Your task to perform on an android device: Search for flights from Sydney to Zurich Image 0: 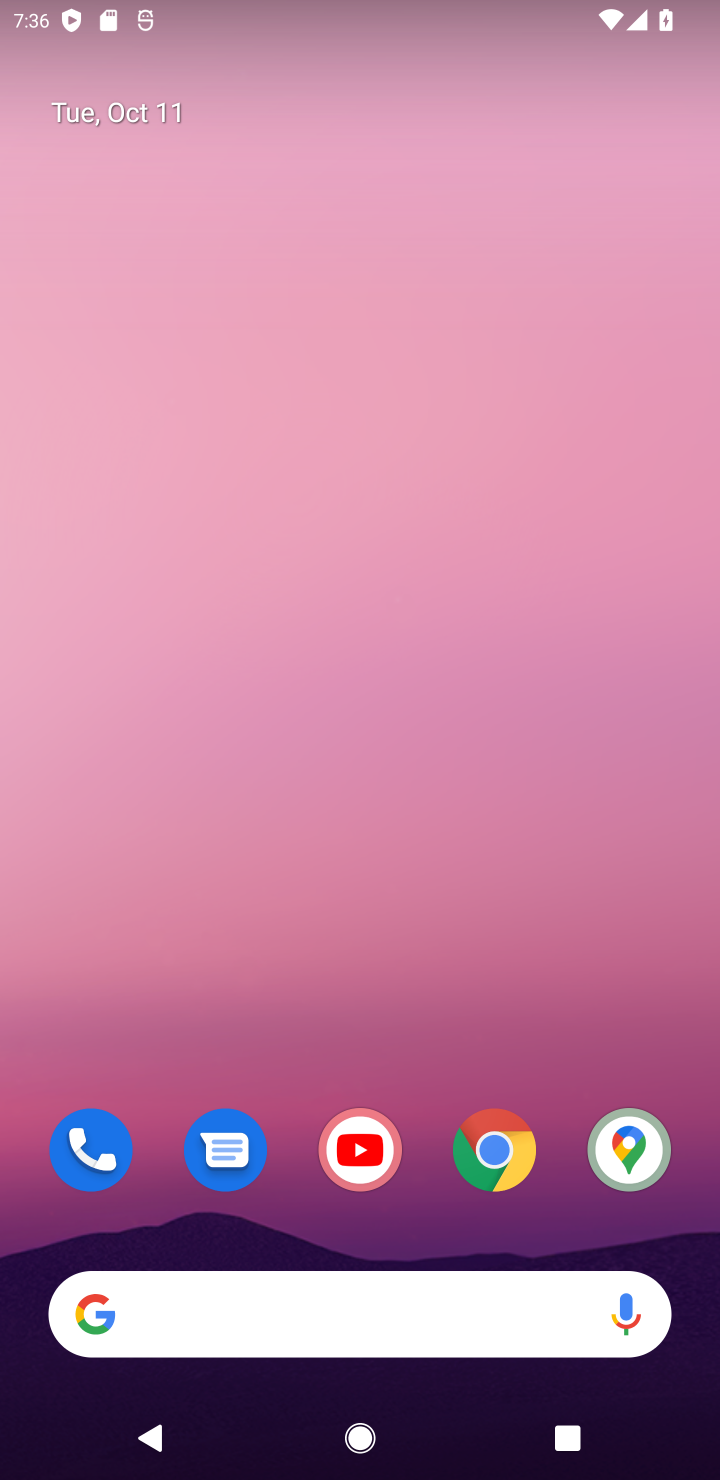
Step 0: click (481, 1145)
Your task to perform on an android device: Search for flights from Sydney to Zurich Image 1: 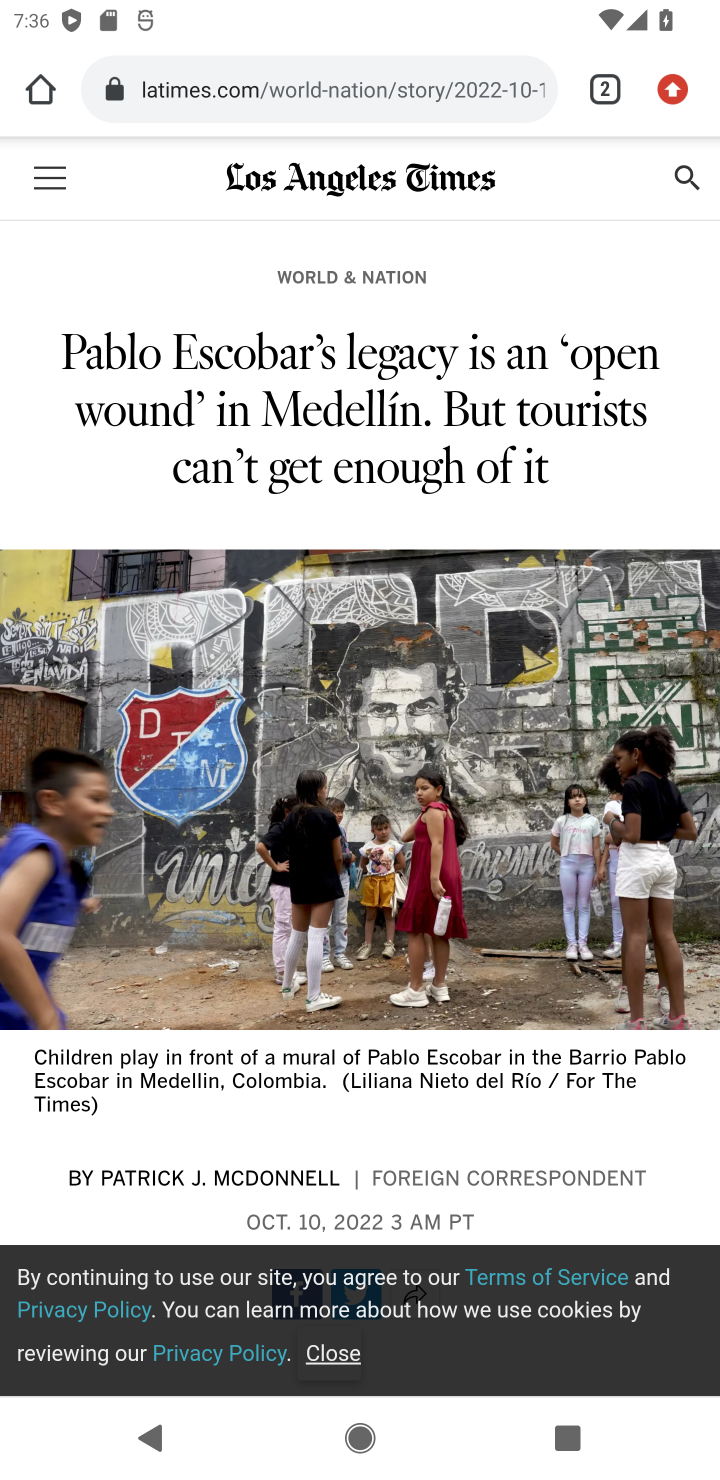
Step 1: click (298, 97)
Your task to perform on an android device: Search for flights from Sydney to Zurich Image 2: 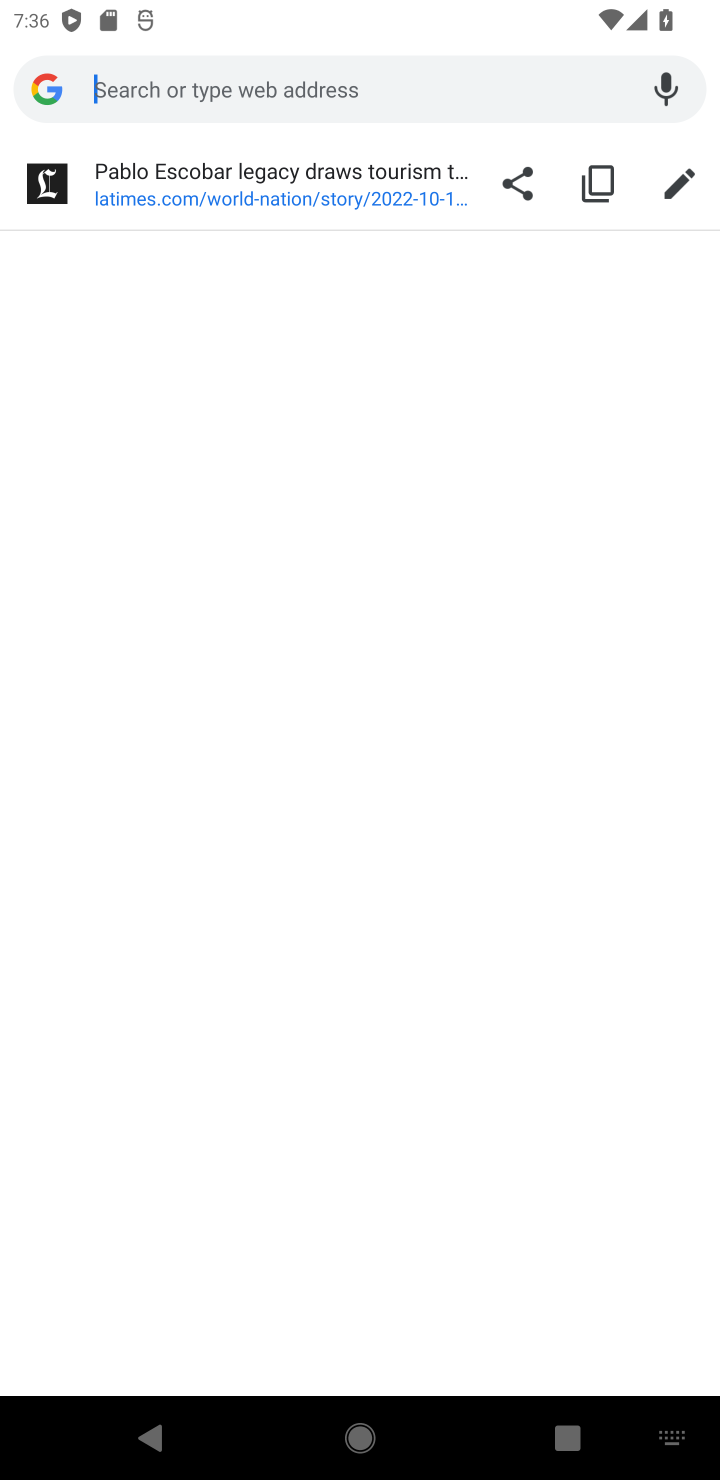
Step 2: type "Sydney to Zurich flights "
Your task to perform on an android device: Search for flights from Sydney to Zurich Image 3: 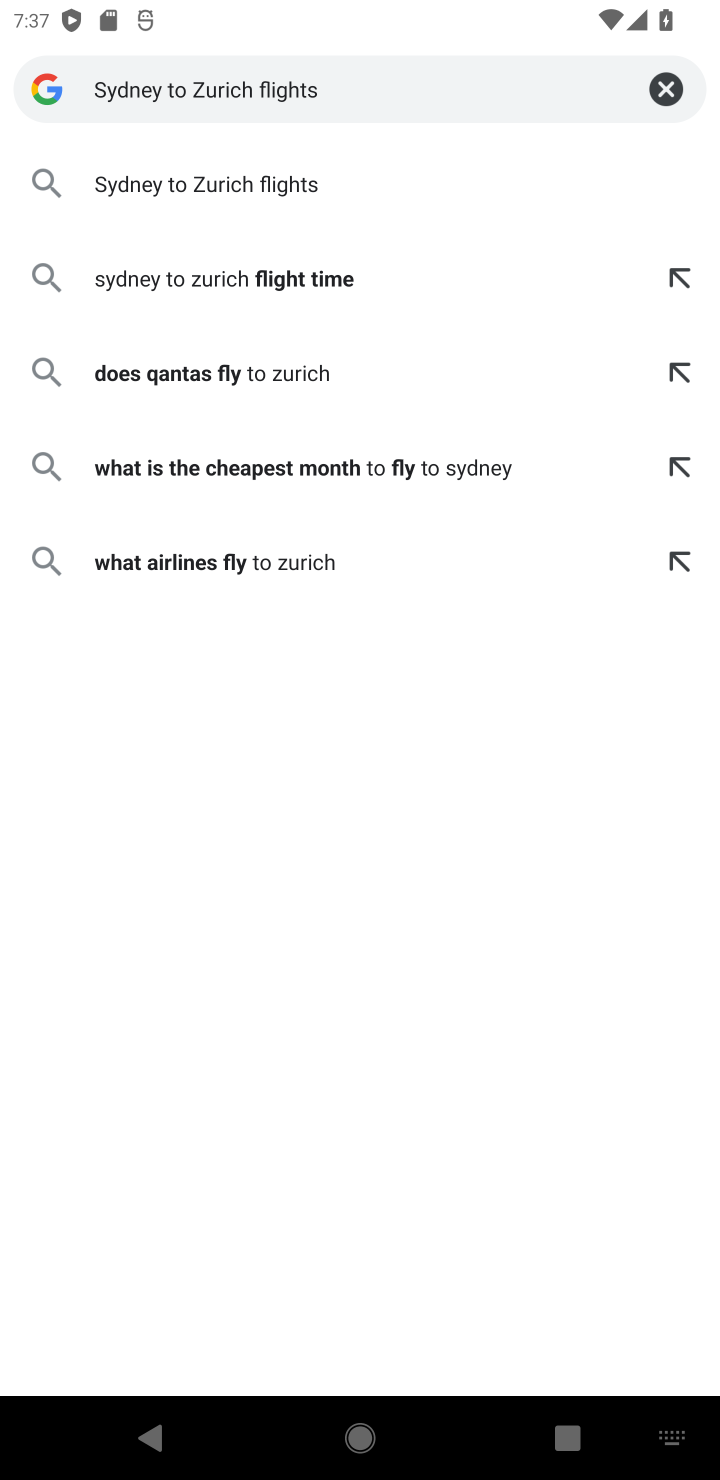
Step 3: click (203, 194)
Your task to perform on an android device: Search for flights from Sydney to Zurich Image 4: 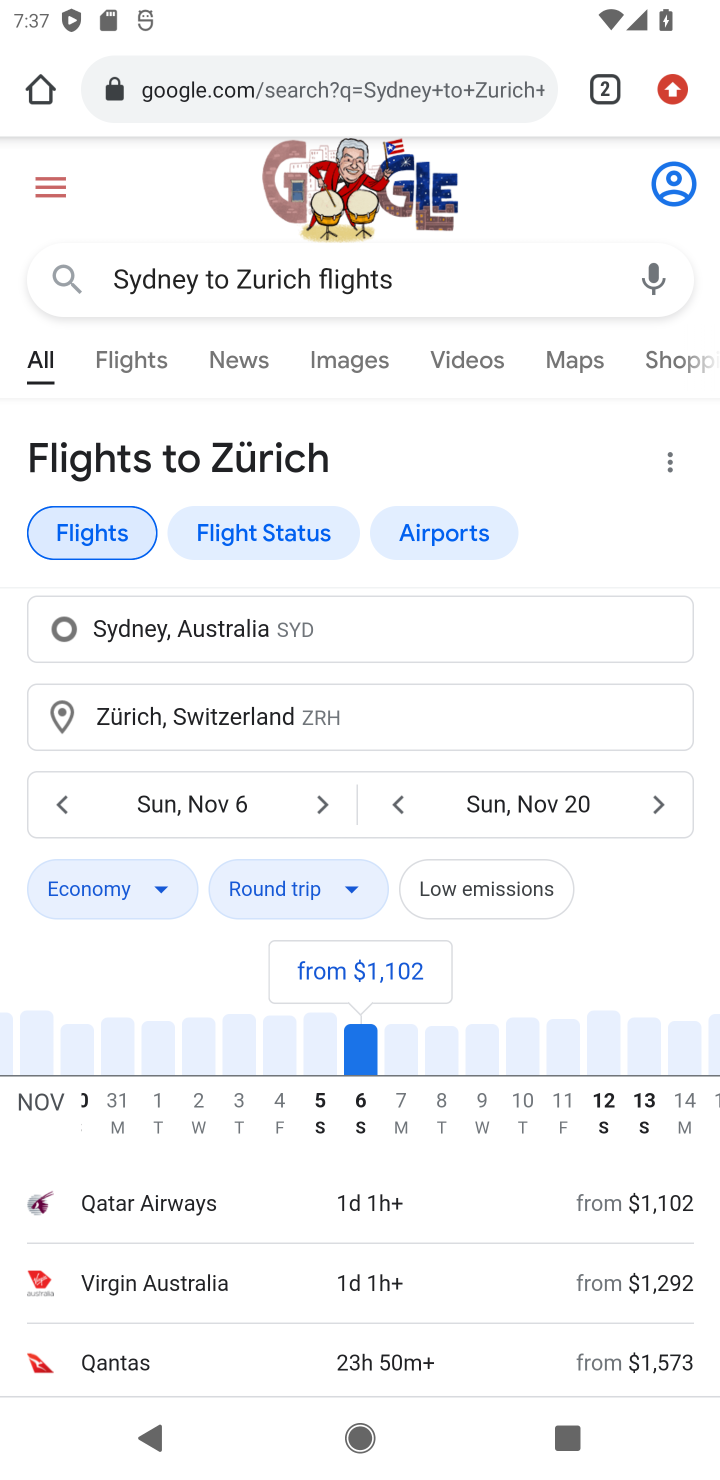
Step 4: click (141, 375)
Your task to perform on an android device: Search for flights from Sydney to Zurich Image 5: 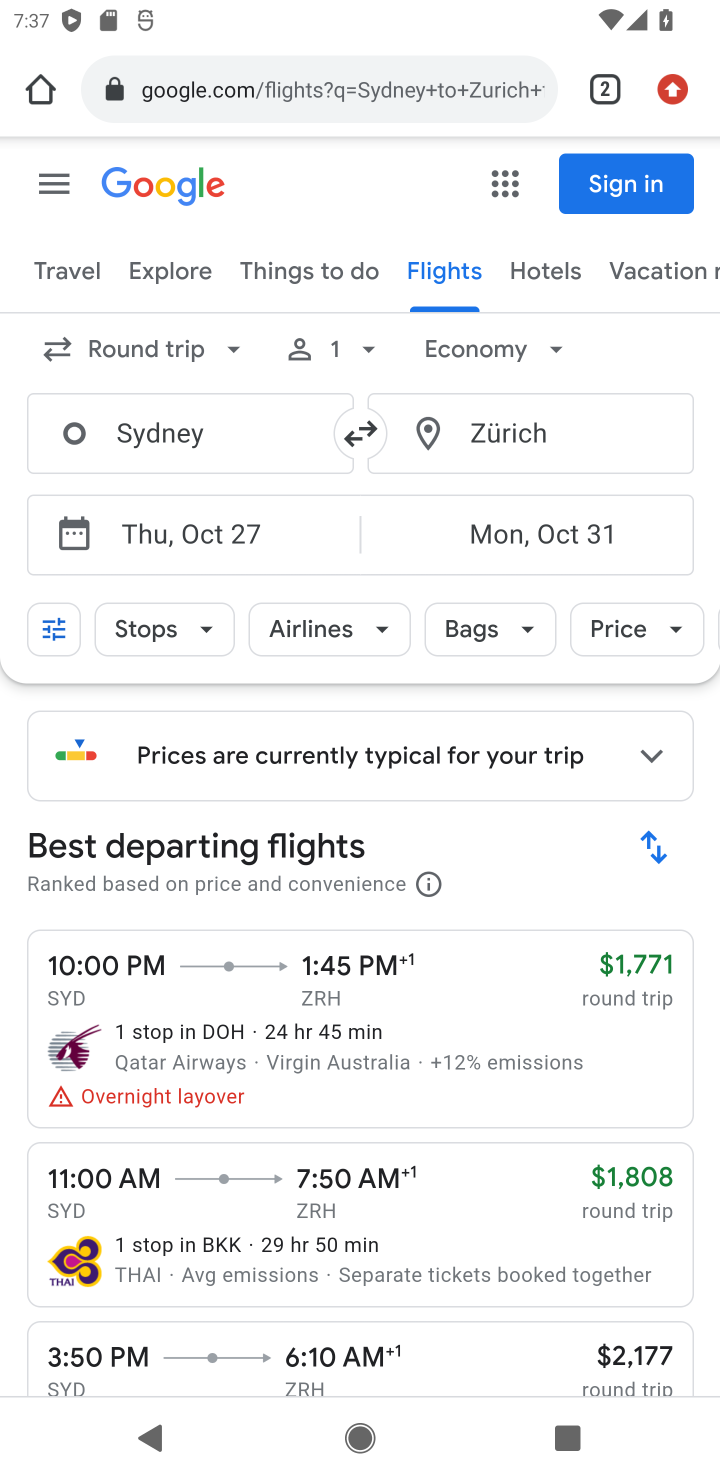
Step 5: task complete